Your task to perform on an android device: What is the news today? Image 0: 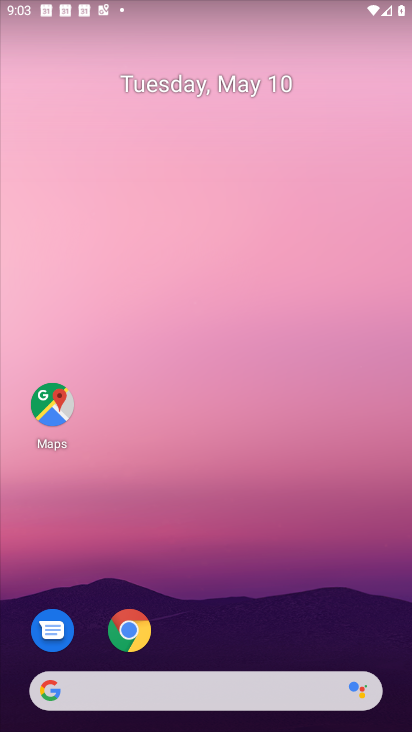
Step 0: click (240, 704)
Your task to perform on an android device: What is the news today? Image 1: 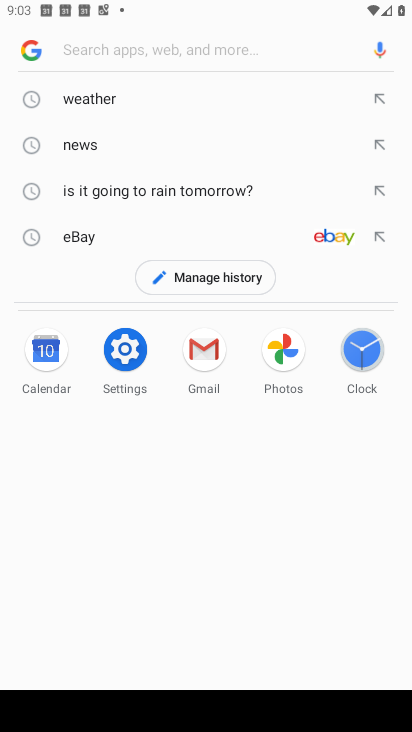
Step 1: type "news today "
Your task to perform on an android device: What is the news today? Image 2: 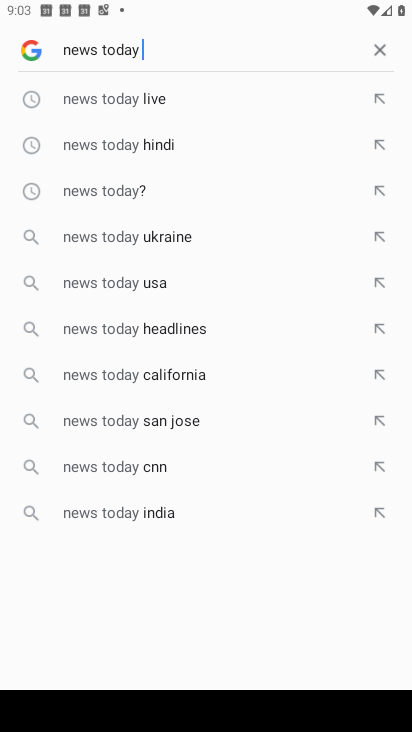
Step 2: click (115, 202)
Your task to perform on an android device: What is the news today? Image 3: 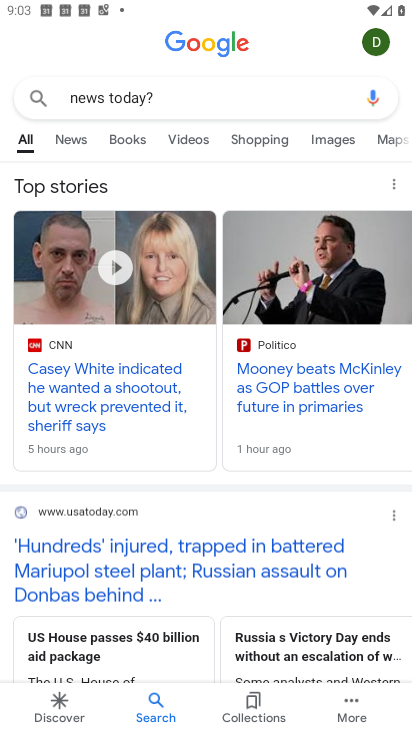
Step 3: task complete